Your task to perform on an android device: Go to internet settings Image 0: 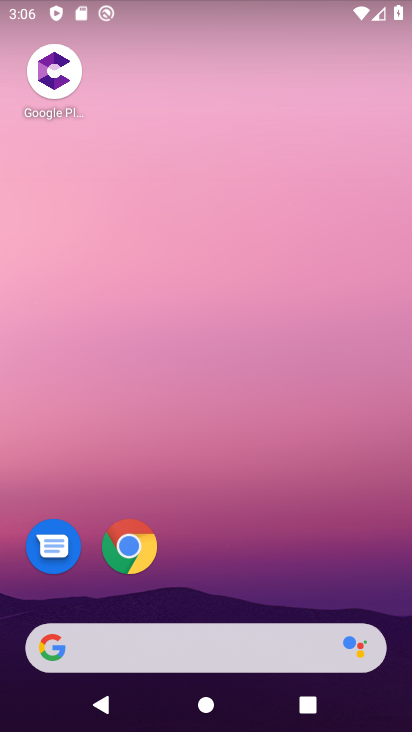
Step 0: drag from (229, 604) to (241, 236)
Your task to perform on an android device: Go to internet settings Image 1: 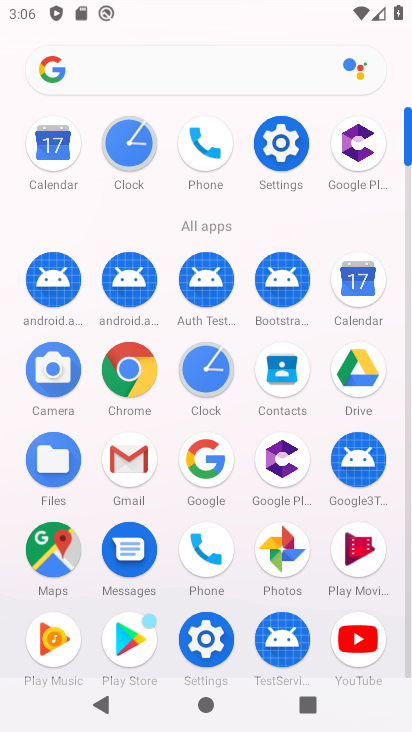
Step 1: click (280, 150)
Your task to perform on an android device: Go to internet settings Image 2: 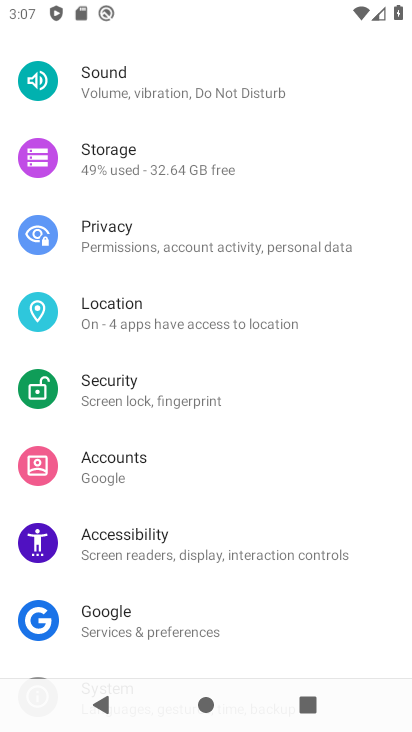
Step 2: drag from (183, 134) to (26, 694)
Your task to perform on an android device: Go to internet settings Image 3: 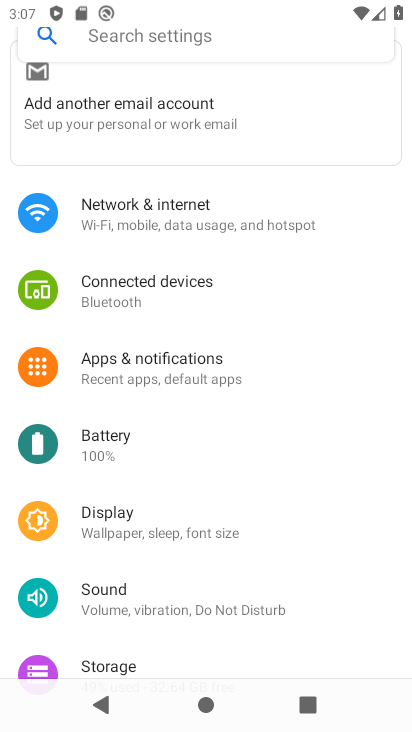
Step 3: click (175, 216)
Your task to perform on an android device: Go to internet settings Image 4: 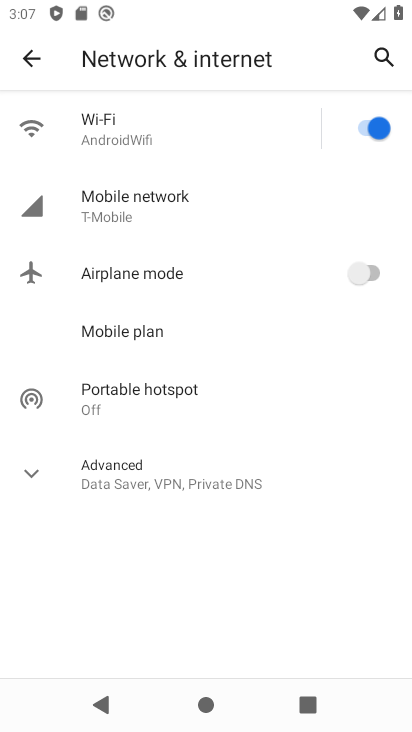
Step 4: task complete